Your task to perform on an android device: clear history in the chrome app Image 0: 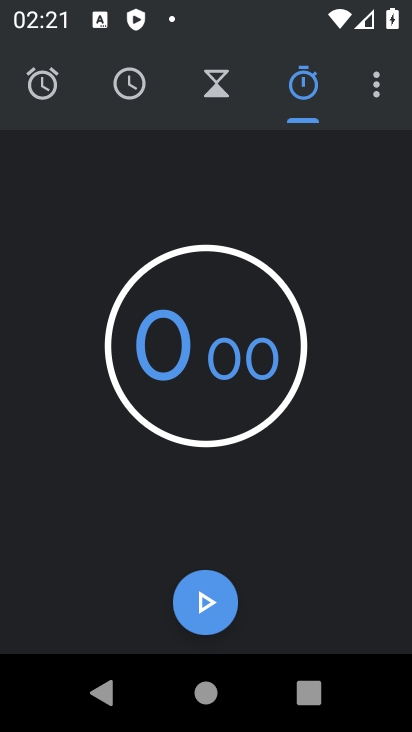
Step 0: press home button
Your task to perform on an android device: clear history in the chrome app Image 1: 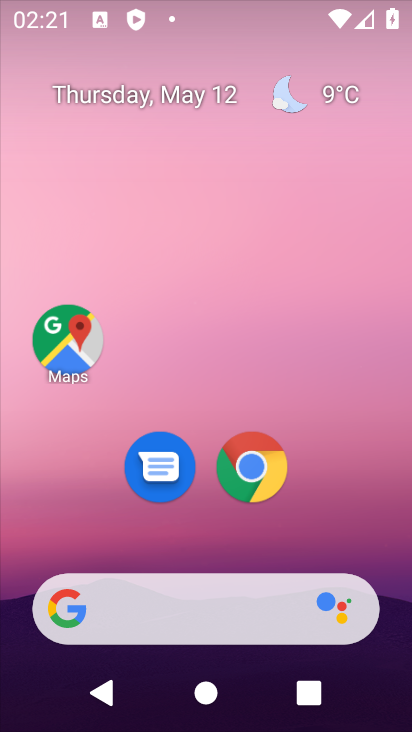
Step 1: drag from (270, 573) to (322, 294)
Your task to perform on an android device: clear history in the chrome app Image 2: 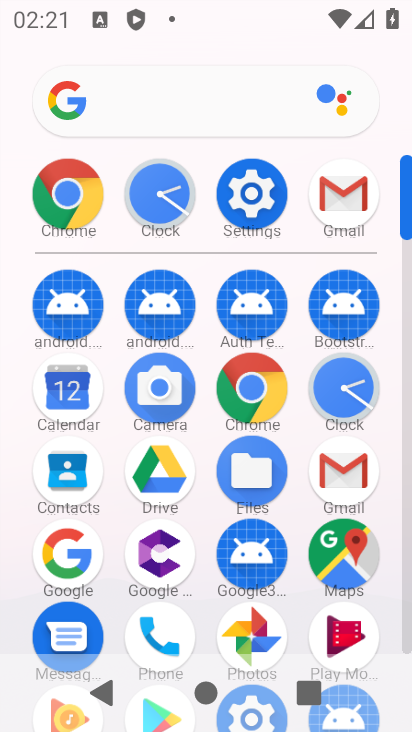
Step 2: click (251, 394)
Your task to perform on an android device: clear history in the chrome app Image 3: 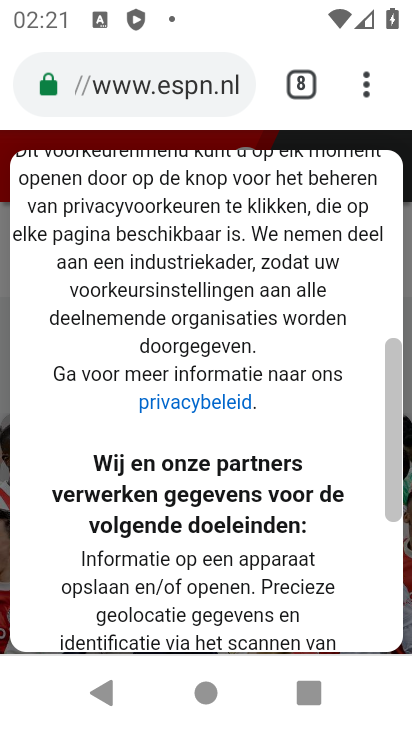
Step 3: click (344, 76)
Your task to perform on an android device: clear history in the chrome app Image 4: 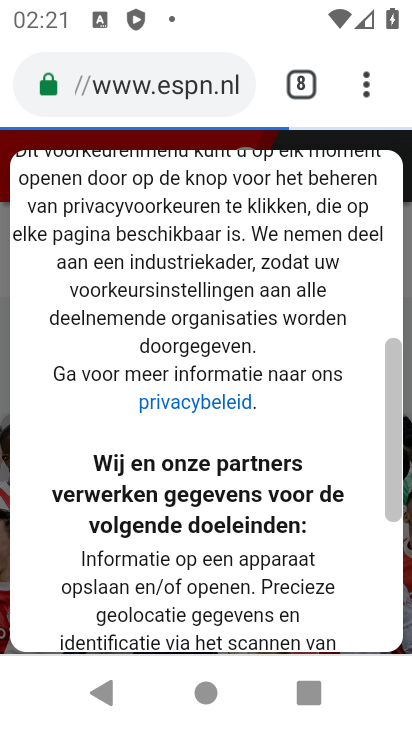
Step 4: click (338, 62)
Your task to perform on an android device: clear history in the chrome app Image 5: 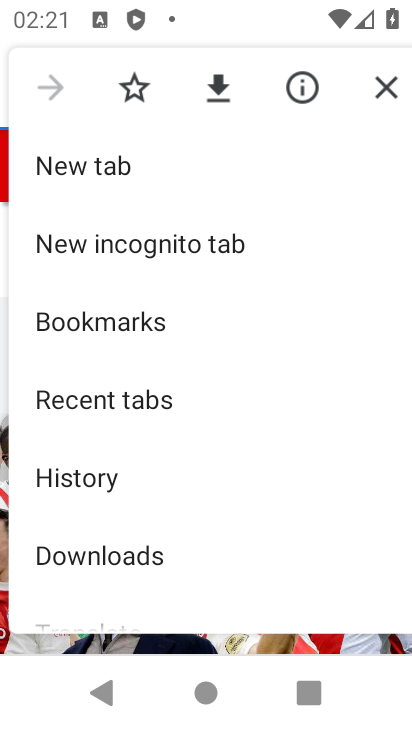
Step 5: click (119, 469)
Your task to perform on an android device: clear history in the chrome app Image 6: 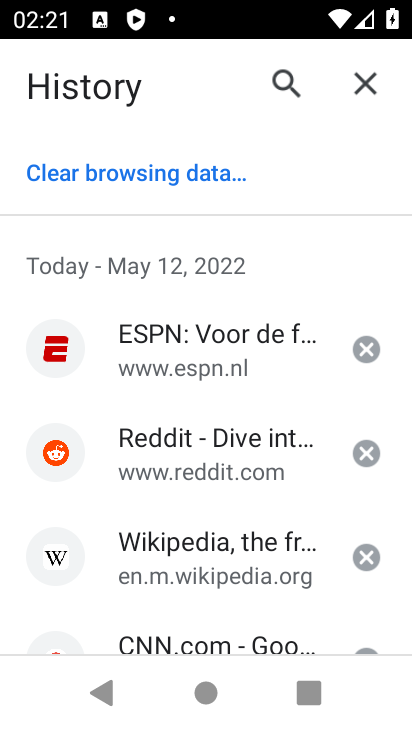
Step 6: click (112, 163)
Your task to perform on an android device: clear history in the chrome app Image 7: 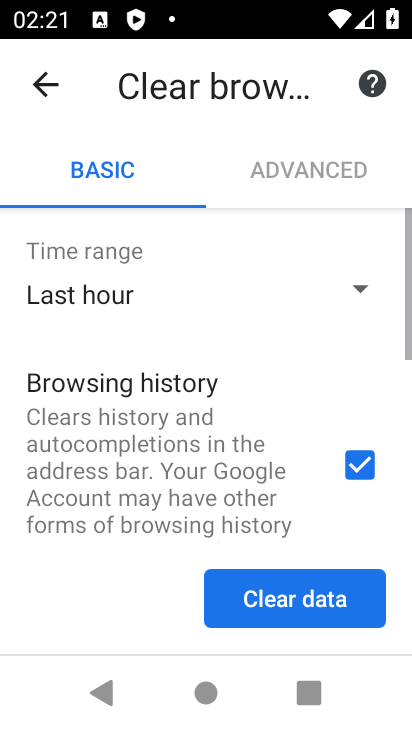
Step 7: click (275, 588)
Your task to perform on an android device: clear history in the chrome app Image 8: 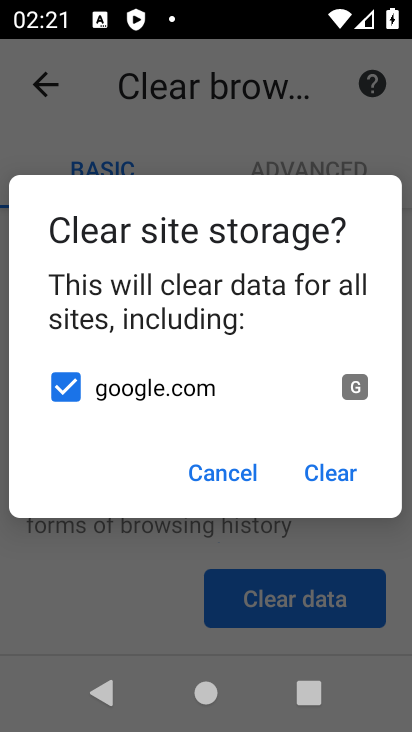
Step 8: click (321, 460)
Your task to perform on an android device: clear history in the chrome app Image 9: 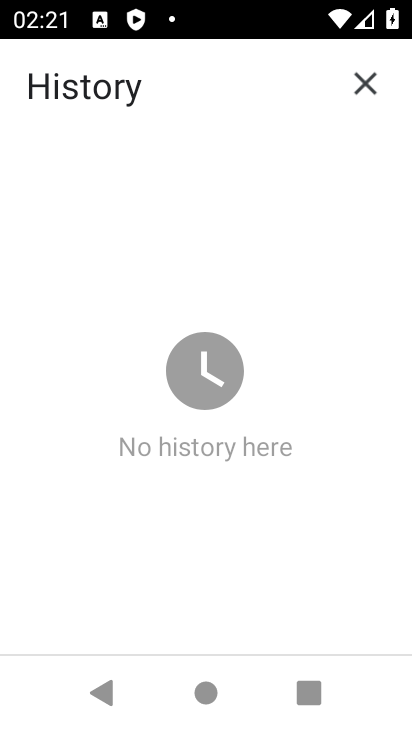
Step 9: task complete